Your task to perform on an android device: What's the news in Barbados? Image 0: 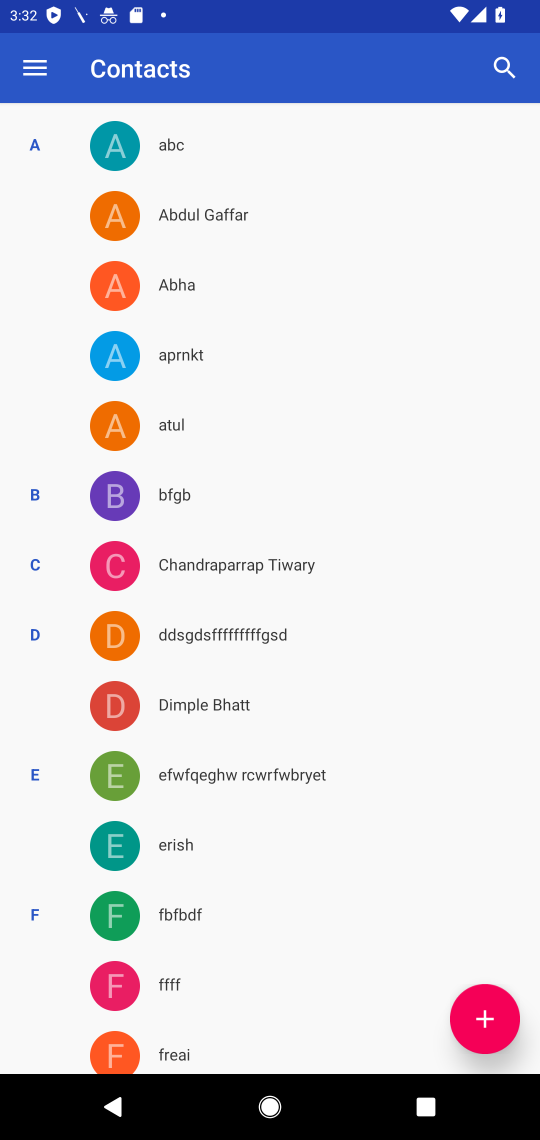
Step 0: press home button
Your task to perform on an android device: What's the news in Barbados? Image 1: 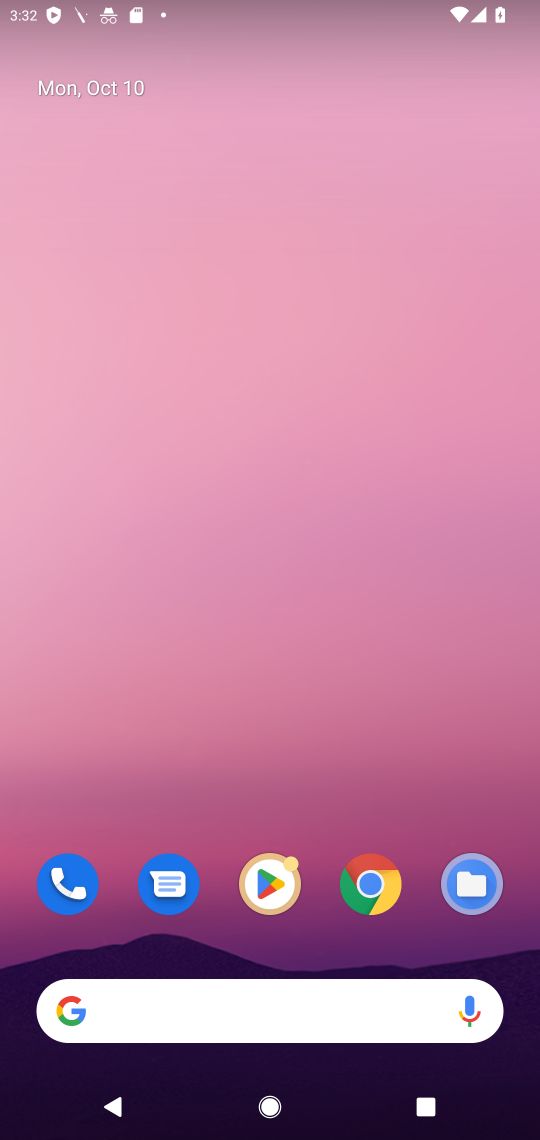
Step 1: click (168, 1000)
Your task to perform on an android device: What's the news in Barbados? Image 2: 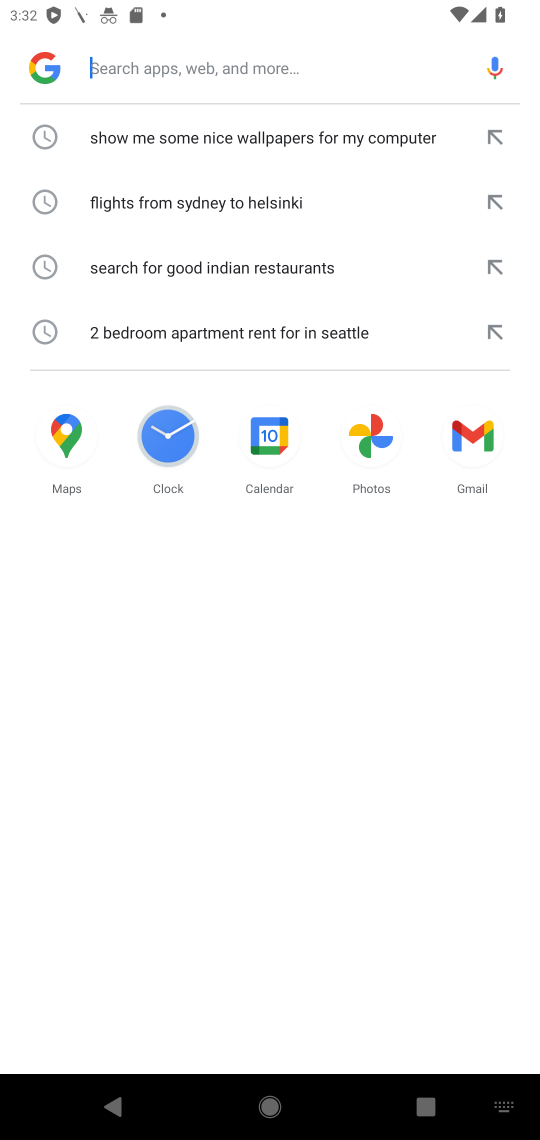
Step 2: type "What's the news in Barbados?"
Your task to perform on an android device: What's the news in Barbados? Image 3: 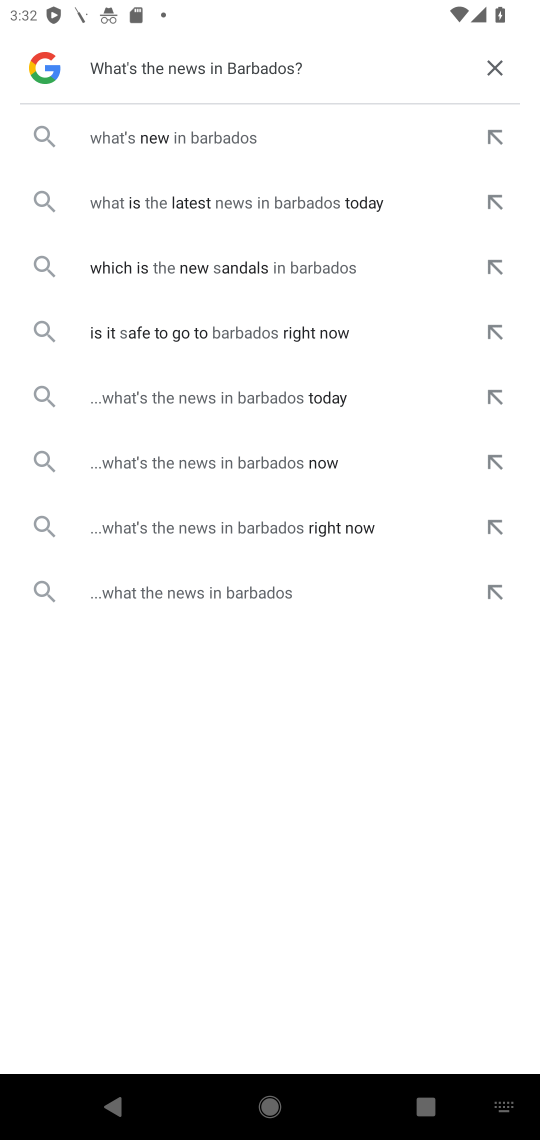
Step 3: click (233, 137)
Your task to perform on an android device: What's the news in Barbados? Image 4: 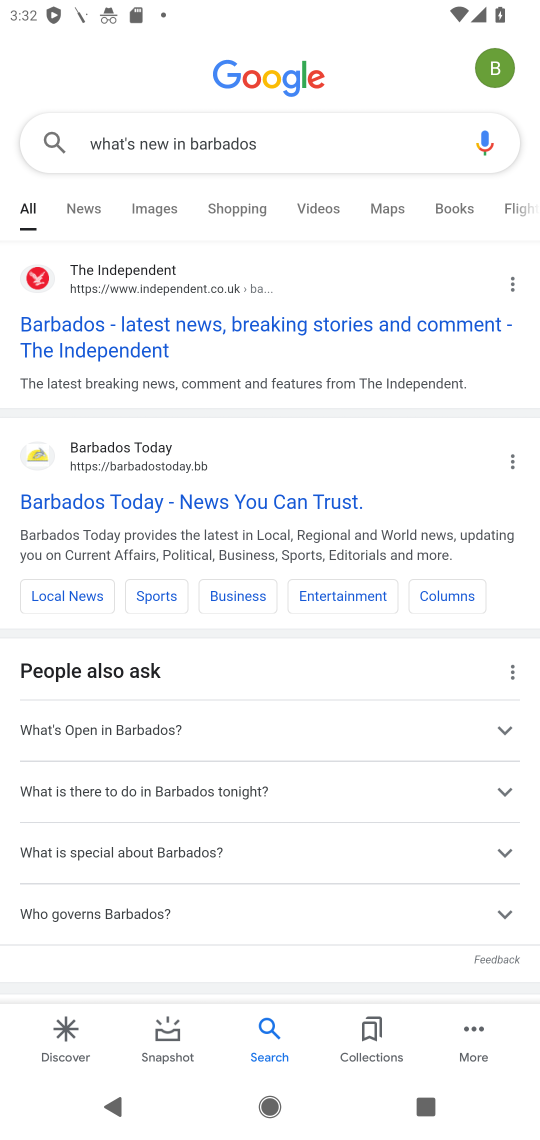
Step 4: click (165, 323)
Your task to perform on an android device: What's the news in Barbados? Image 5: 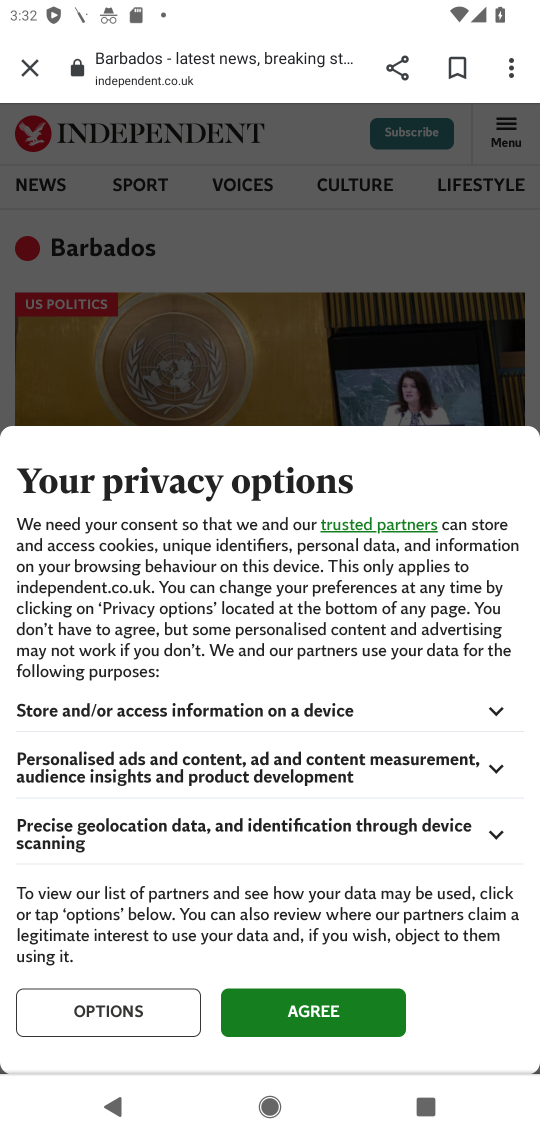
Step 5: click (280, 1018)
Your task to perform on an android device: What's the news in Barbados? Image 6: 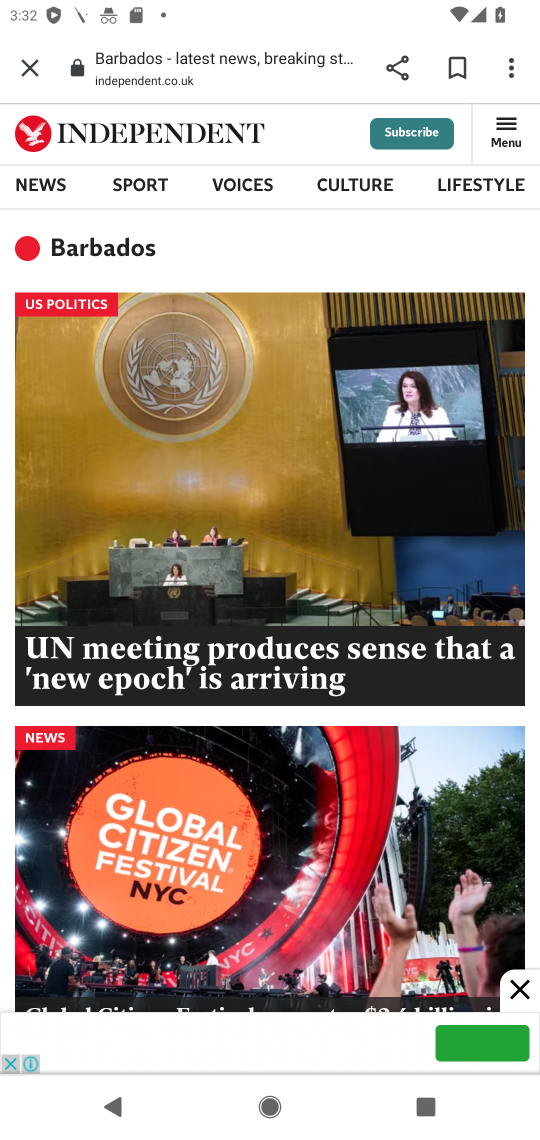
Step 6: task complete